Your task to perform on an android device: open app "Google Play services" (install if not already installed) Image 0: 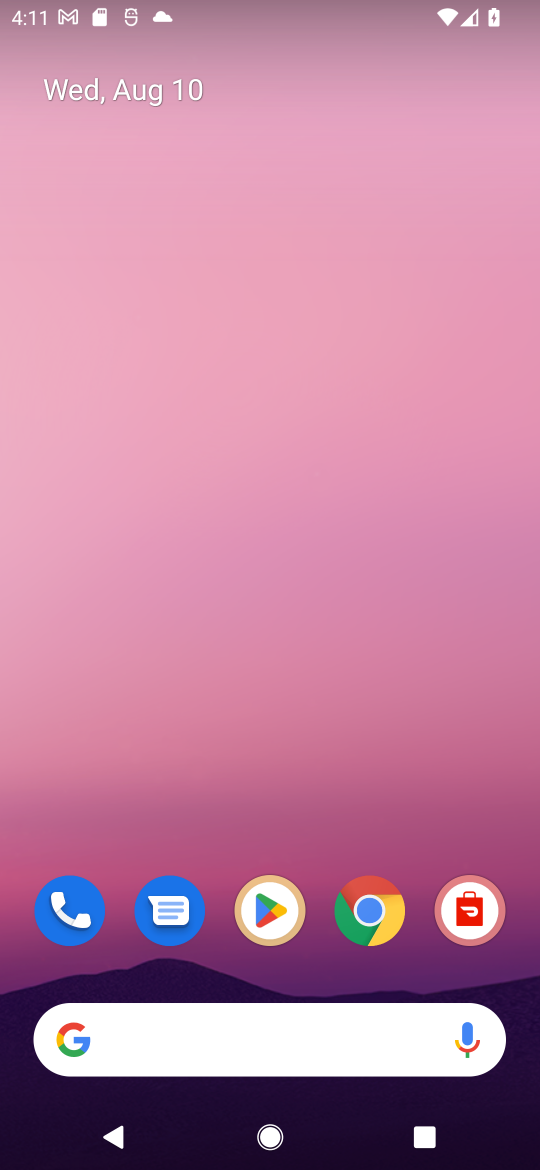
Step 0: click (266, 909)
Your task to perform on an android device: open app "Google Play services" (install if not already installed) Image 1: 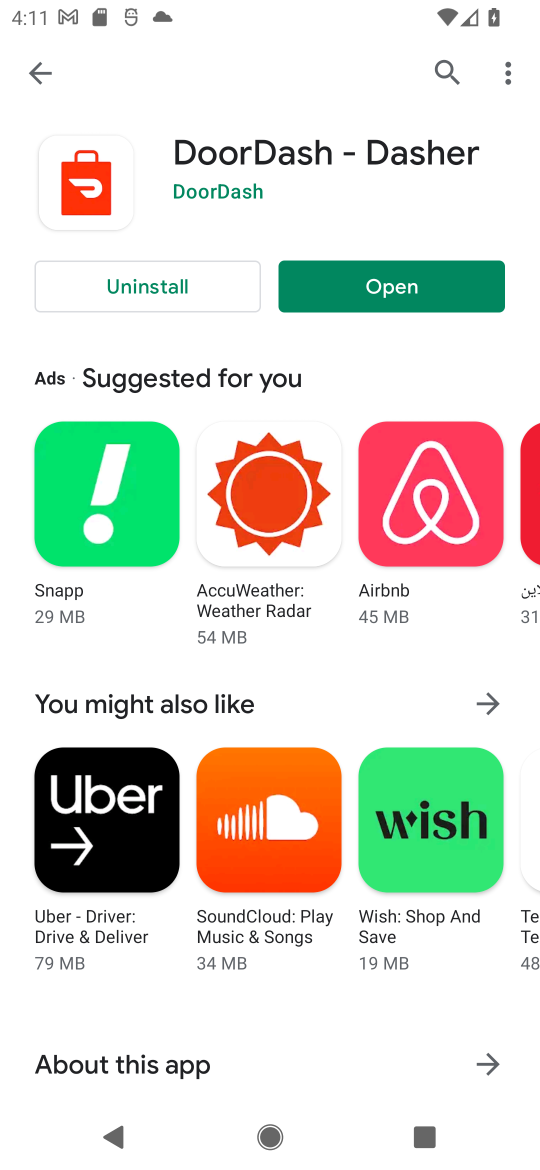
Step 1: click (452, 66)
Your task to perform on an android device: open app "Google Play services" (install if not already installed) Image 2: 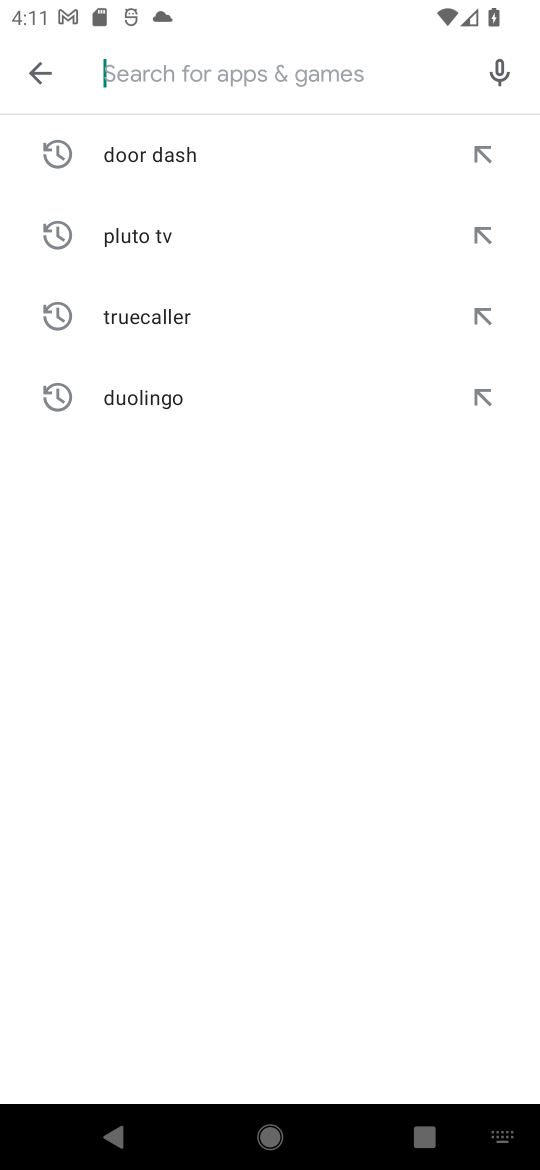
Step 2: click (196, 93)
Your task to perform on an android device: open app "Google Play services" (install if not already installed) Image 3: 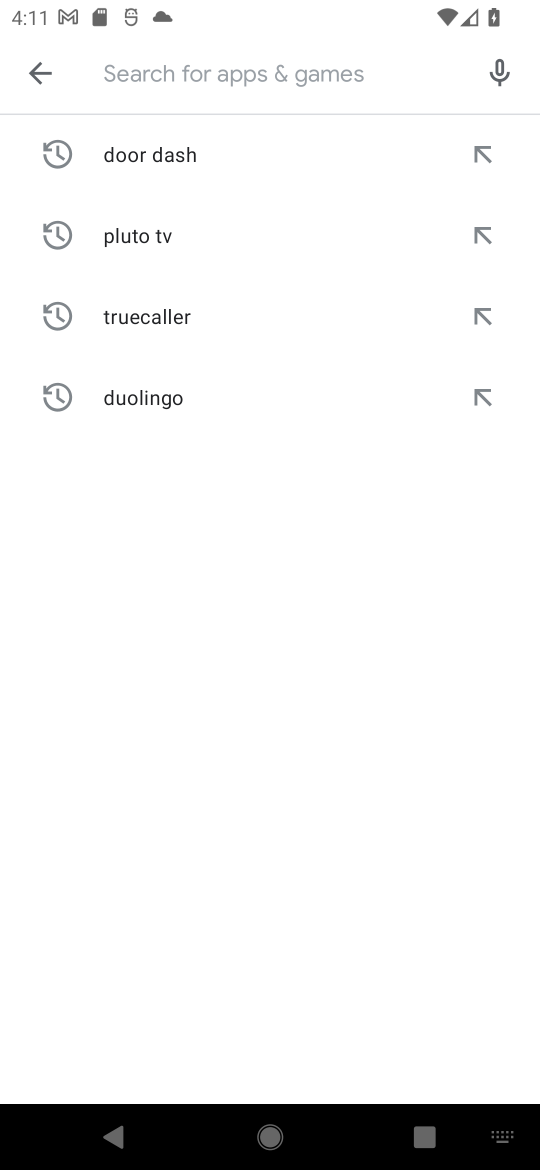
Step 3: type "Google Play services"
Your task to perform on an android device: open app "Google Play services" (install if not already installed) Image 4: 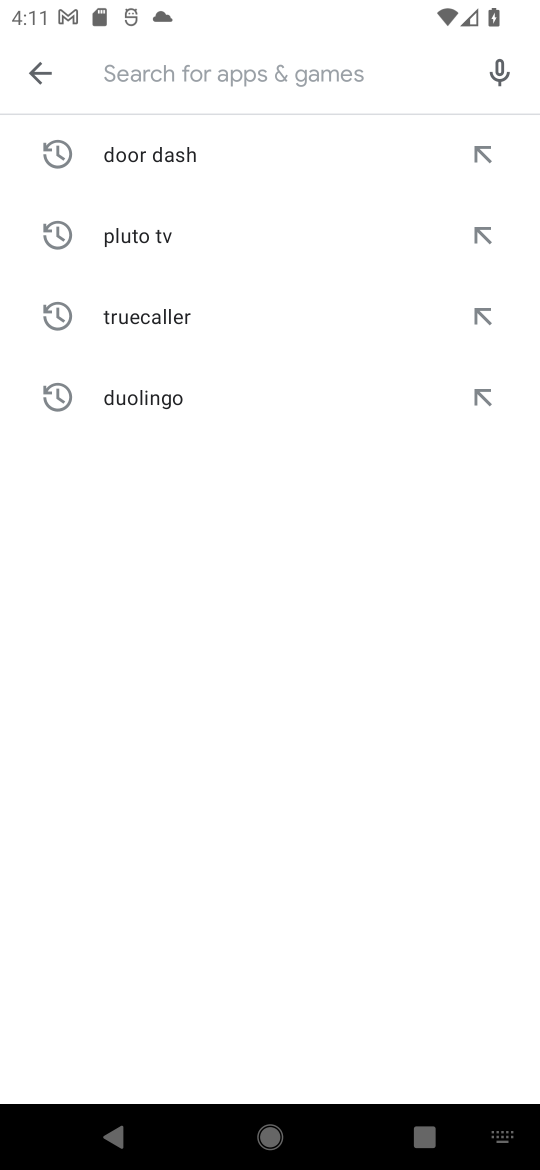
Step 4: click (372, 694)
Your task to perform on an android device: open app "Google Play services" (install if not already installed) Image 5: 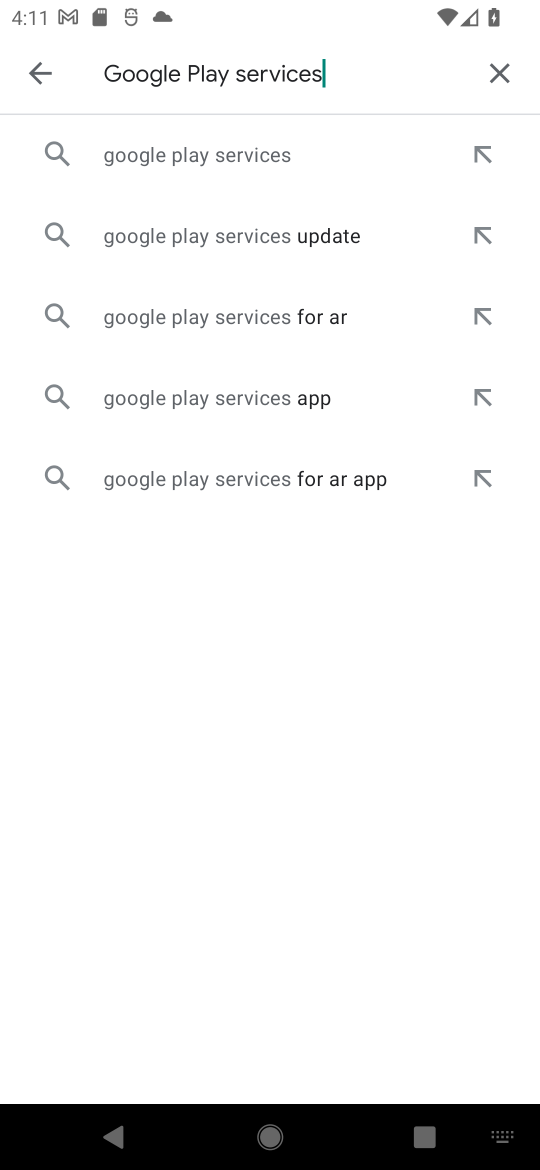
Step 5: click (178, 165)
Your task to perform on an android device: open app "Google Play services" (install if not already installed) Image 6: 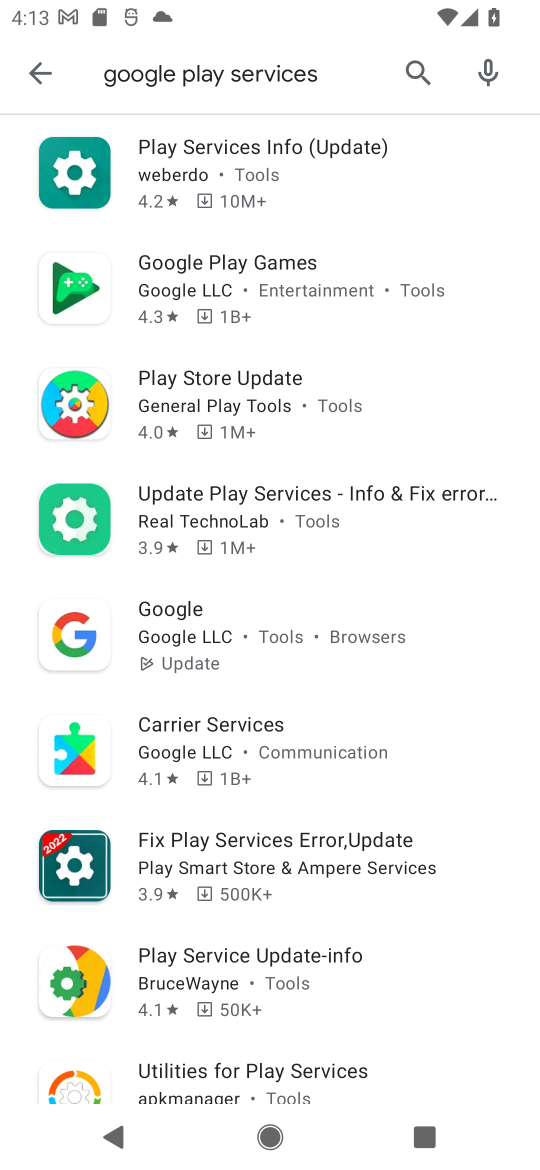
Step 6: task complete